Your task to perform on an android device: Go to ESPN.com Image 0: 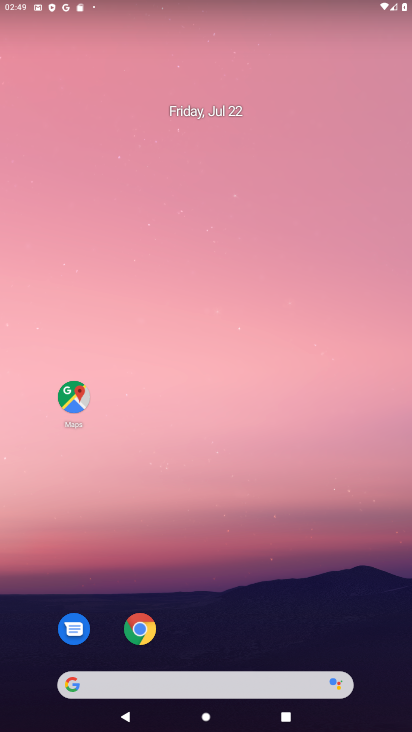
Step 0: click (143, 629)
Your task to perform on an android device: Go to ESPN.com Image 1: 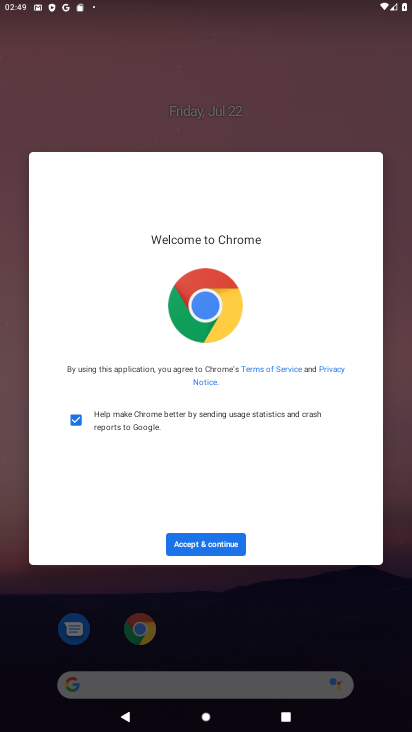
Step 1: click (205, 544)
Your task to perform on an android device: Go to ESPN.com Image 2: 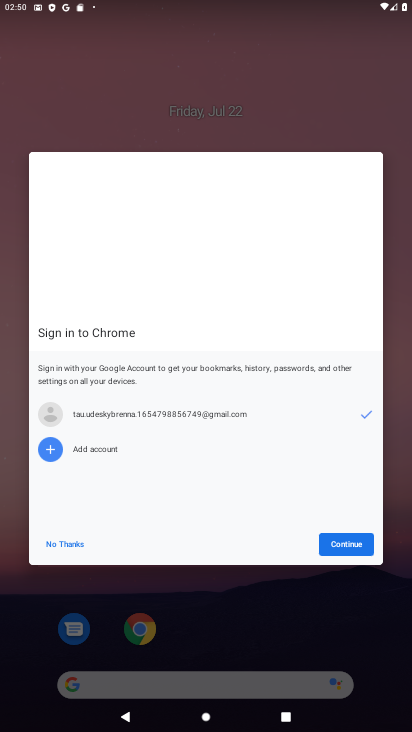
Step 2: click (335, 543)
Your task to perform on an android device: Go to ESPN.com Image 3: 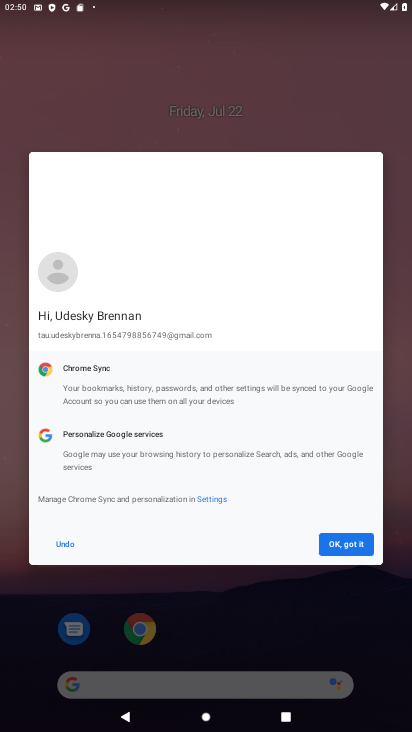
Step 3: click (335, 543)
Your task to perform on an android device: Go to ESPN.com Image 4: 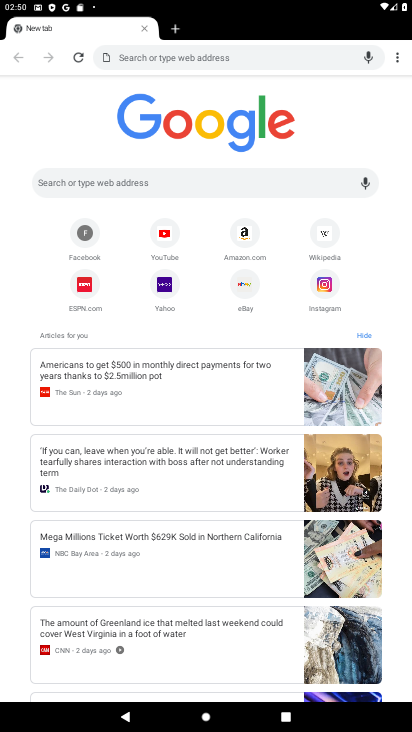
Step 4: click (80, 286)
Your task to perform on an android device: Go to ESPN.com Image 5: 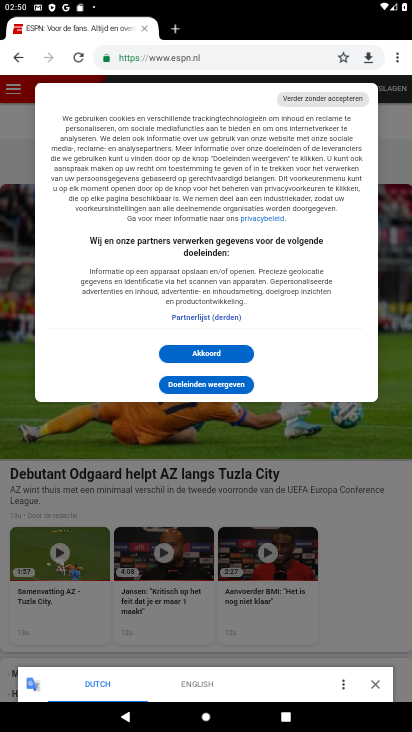
Step 5: task complete